Your task to perform on an android device: How much does a 2 bedroom apartment rent for in Atlanta? Image 0: 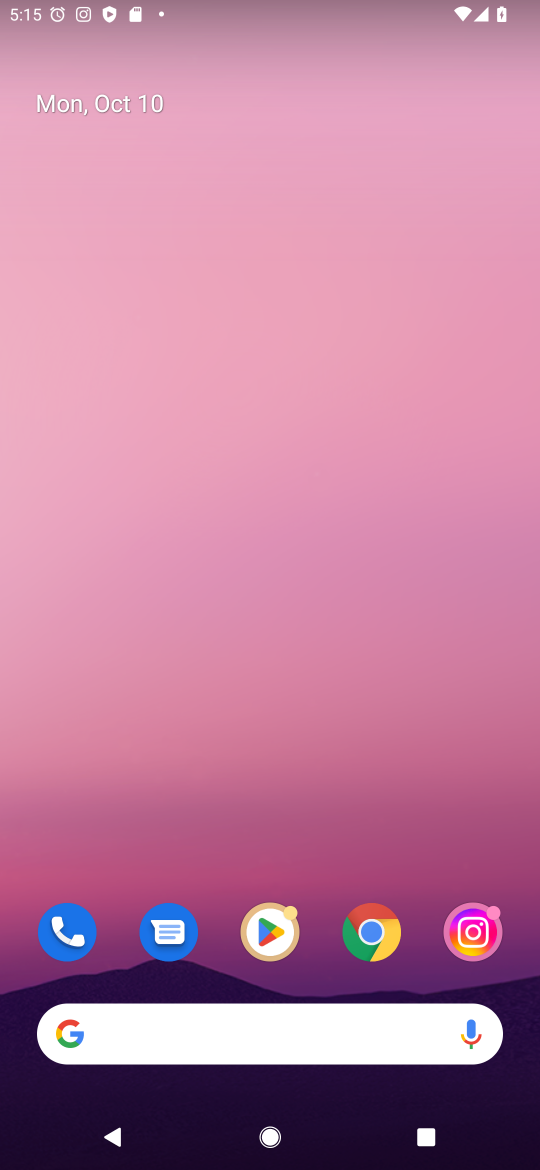
Step 0: press home button
Your task to perform on an android device: How much does a 2 bedroom apartment rent for in Atlanta? Image 1: 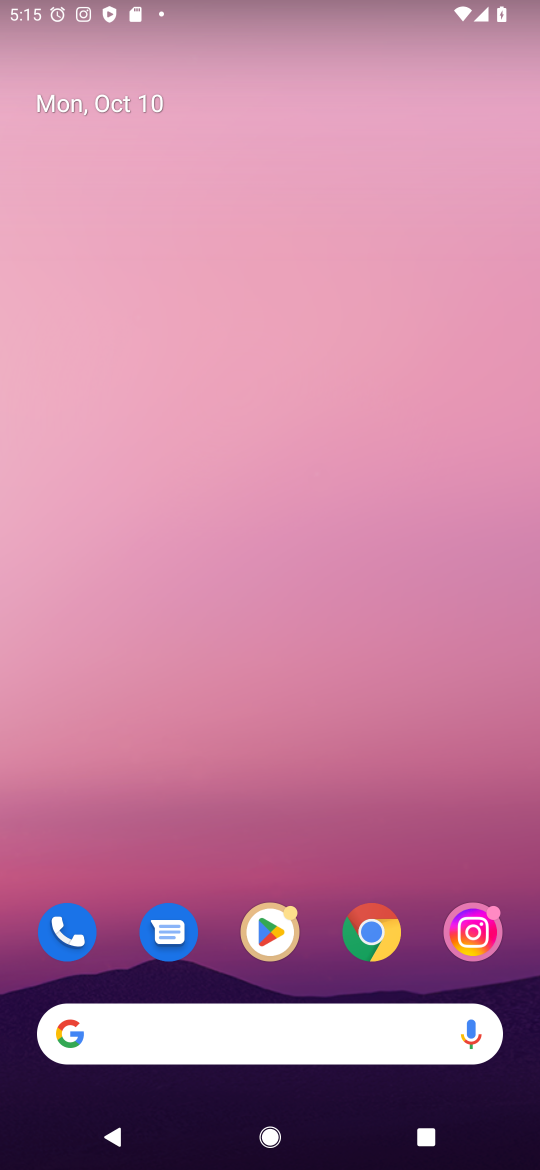
Step 1: click (336, 1037)
Your task to perform on an android device: How much does a 2 bedroom apartment rent for in Atlanta? Image 2: 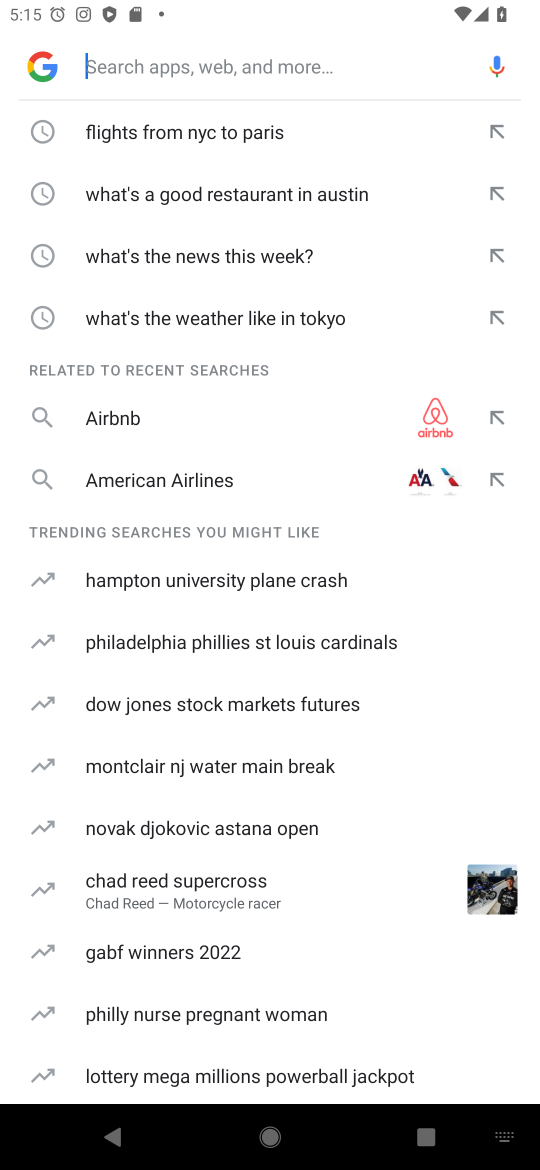
Step 2: type "2 bedroom apartment rent for in Atlanta"
Your task to perform on an android device: How much does a 2 bedroom apartment rent for in Atlanta? Image 3: 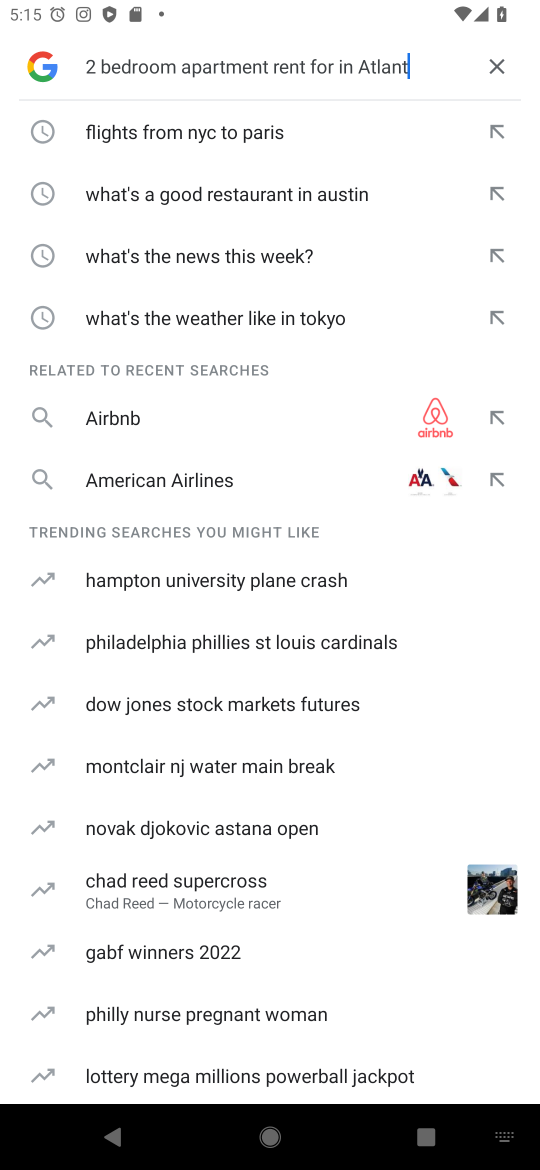
Step 3: press enter
Your task to perform on an android device: How much does a 2 bedroom apartment rent for in Atlanta? Image 4: 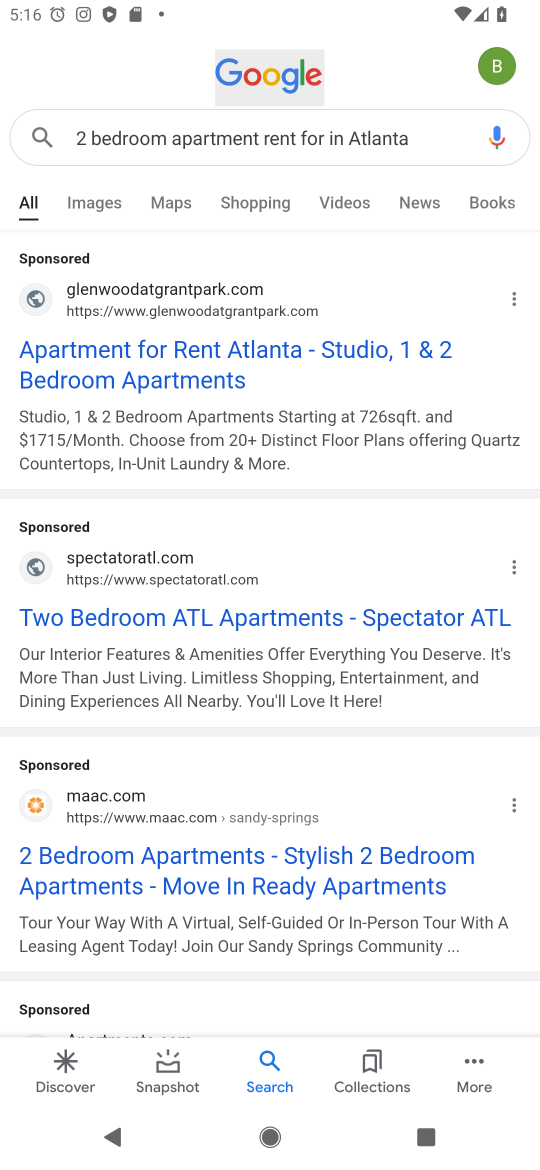
Step 4: click (229, 363)
Your task to perform on an android device: How much does a 2 bedroom apartment rent for in Atlanta? Image 5: 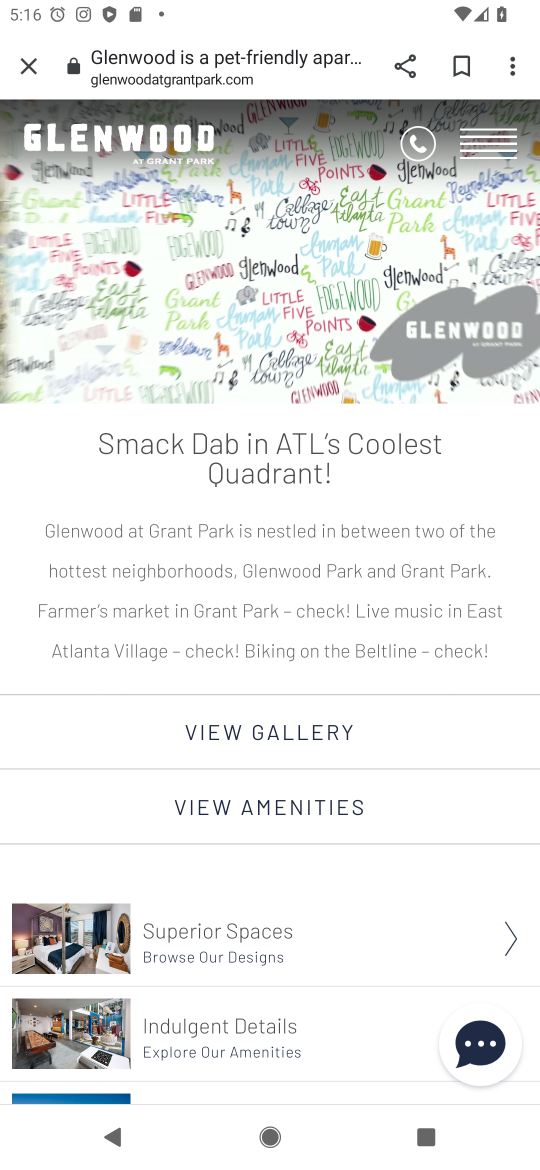
Step 5: task complete